Your task to perform on an android device: Go to Maps Image 0: 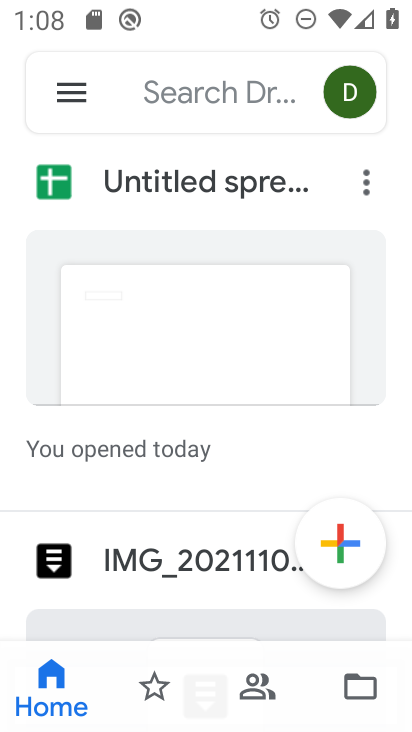
Step 0: press home button
Your task to perform on an android device: Go to Maps Image 1: 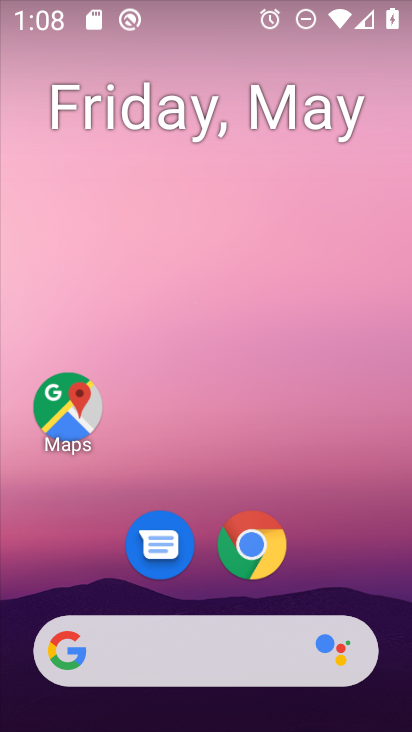
Step 1: click (74, 406)
Your task to perform on an android device: Go to Maps Image 2: 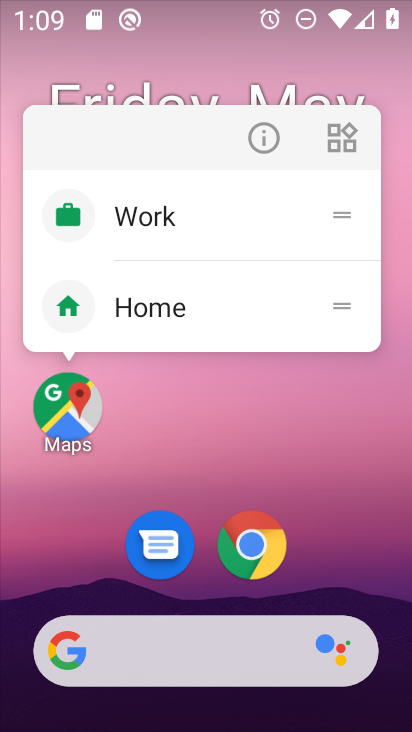
Step 2: click (60, 404)
Your task to perform on an android device: Go to Maps Image 3: 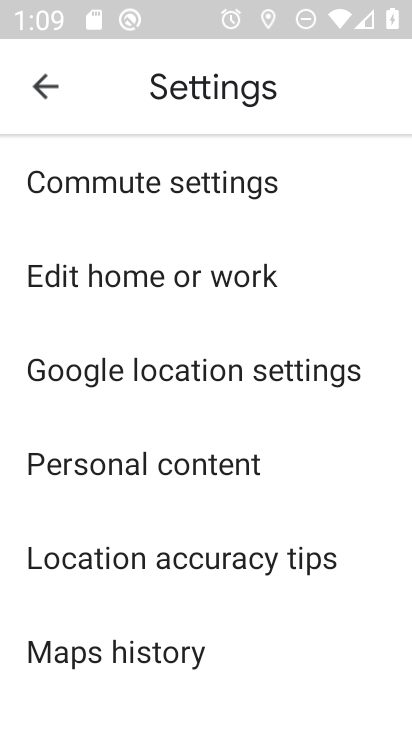
Step 3: click (56, 69)
Your task to perform on an android device: Go to Maps Image 4: 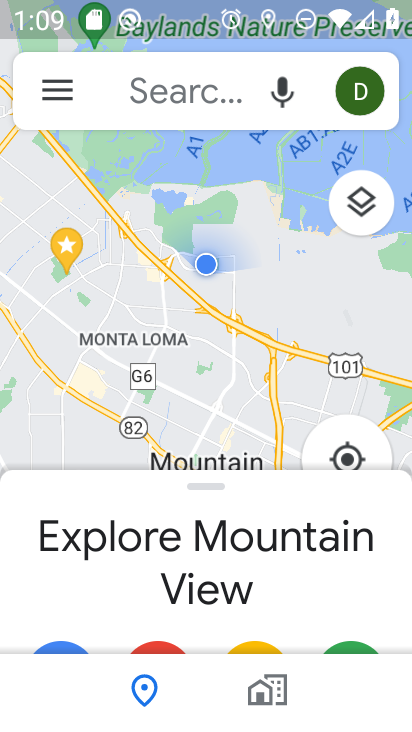
Step 4: task complete